Your task to perform on an android device: Is it going to rain tomorrow? Image 0: 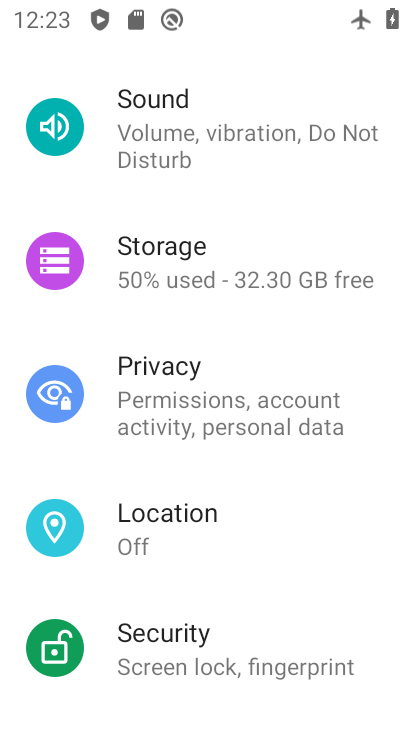
Step 0: drag from (214, 723) to (45, 688)
Your task to perform on an android device: Is it going to rain tomorrow? Image 1: 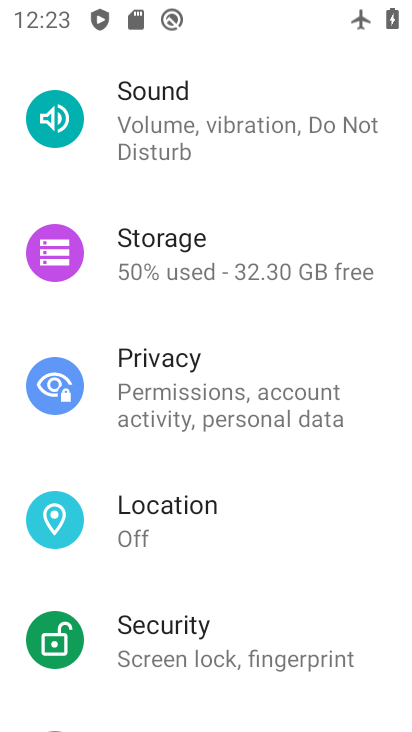
Step 1: press home button
Your task to perform on an android device: Is it going to rain tomorrow? Image 2: 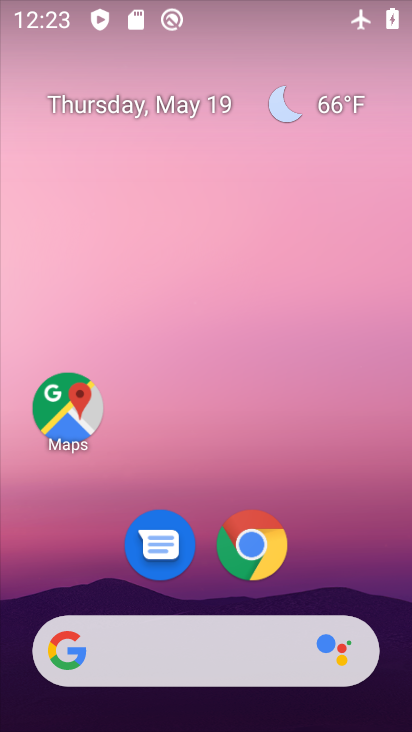
Step 2: click (257, 646)
Your task to perform on an android device: Is it going to rain tomorrow? Image 3: 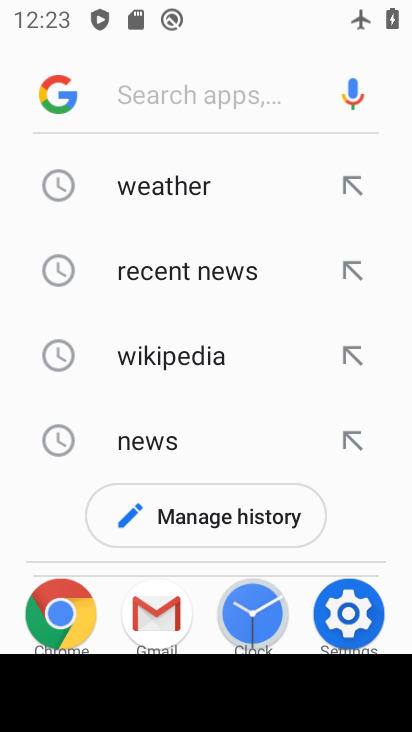
Step 3: type " Is it going to rain tomorrow?"
Your task to perform on an android device: Is it going to rain tomorrow? Image 4: 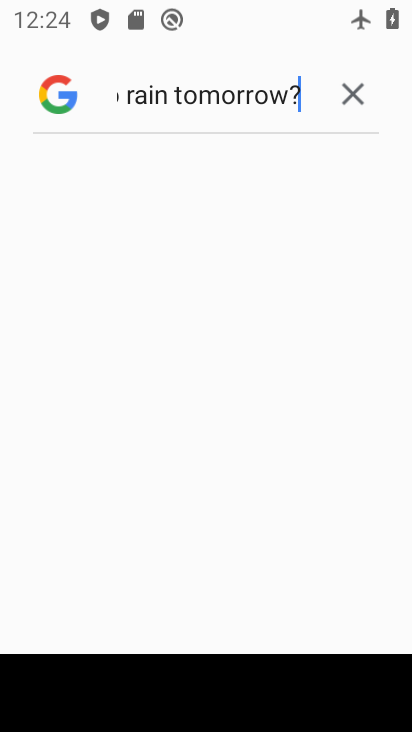
Step 4: task complete